Your task to perform on an android device: turn on improve location accuracy Image 0: 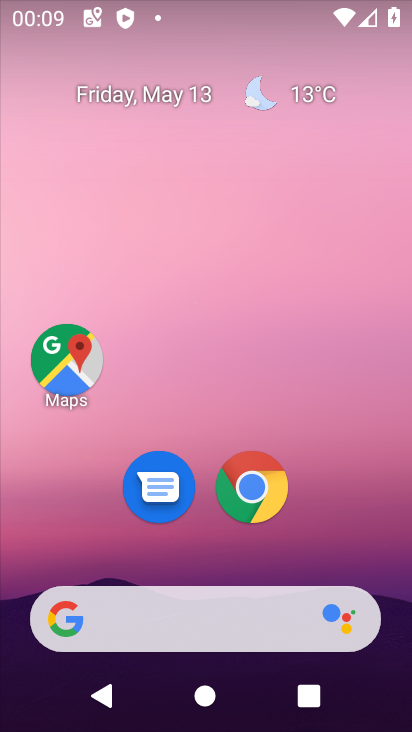
Step 0: drag from (206, 559) to (274, 52)
Your task to perform on an android device: turn on improve location accuracy Image 1: 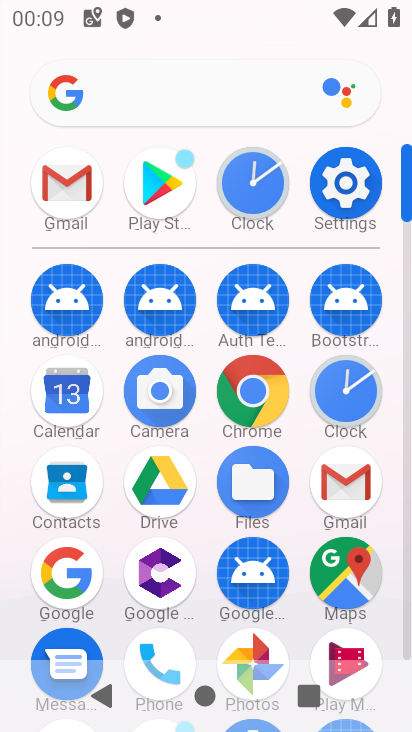
Step 1: click (336, 173)
Your task to perform on an android device: turn on improve location accuracy Image 2: 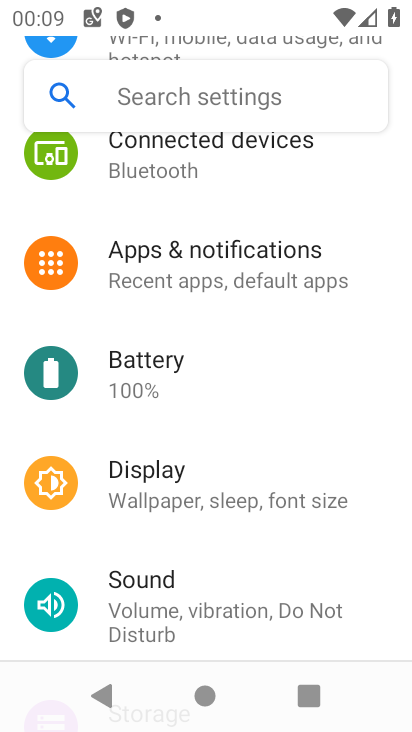
Step 2: drag from (201, 498) to (302, 90)
Your task to perform on an android device: turn on improve location accuracy Image 3: 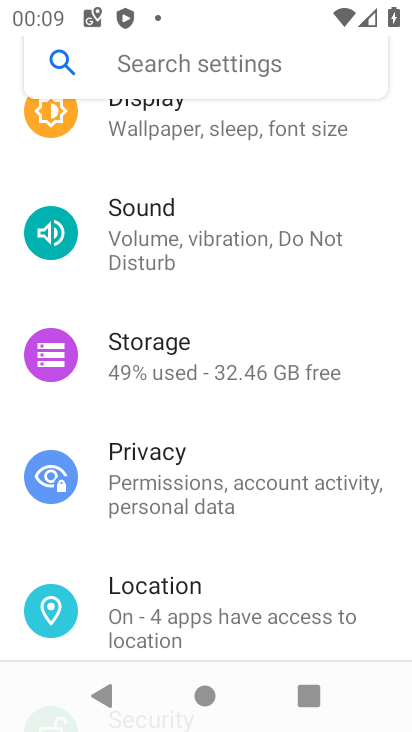
Step 3: click (175, 616)
Your task to perform on an android device: turn on improve location accuracy Image 4: 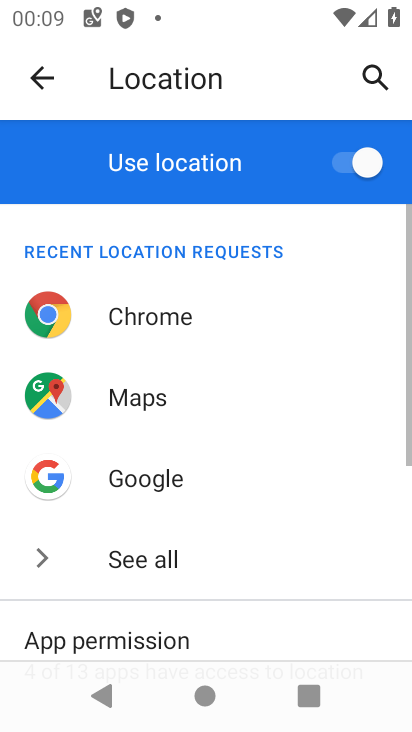
Step 4: drag from (175, 616) to (209, 205)
Your task to perform on an android device: turn on improve location accuracy Image 5: 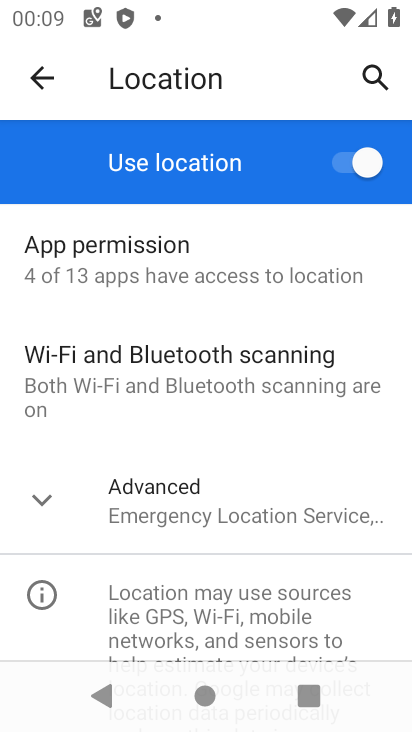
Step 5: click (146, 517)
Your task to perform on an android device: turn on improve location accuracy Image 6: 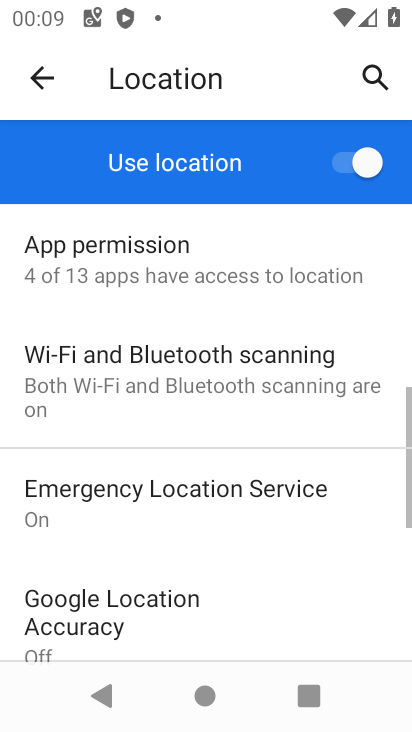
Step 6: drag from (180, 611) to (205, 179)
Your task to perform on an android device: turn on improve location accuracy Image 7: 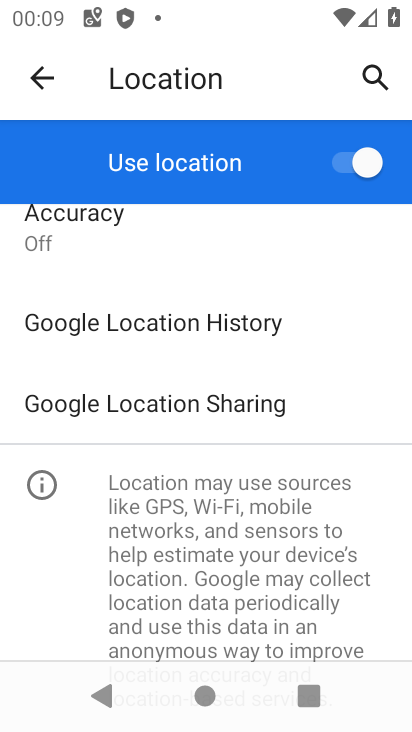
Step 7: click (101, 218)
Your task to perform on an android device: turn on improve location accuracy Image 8: 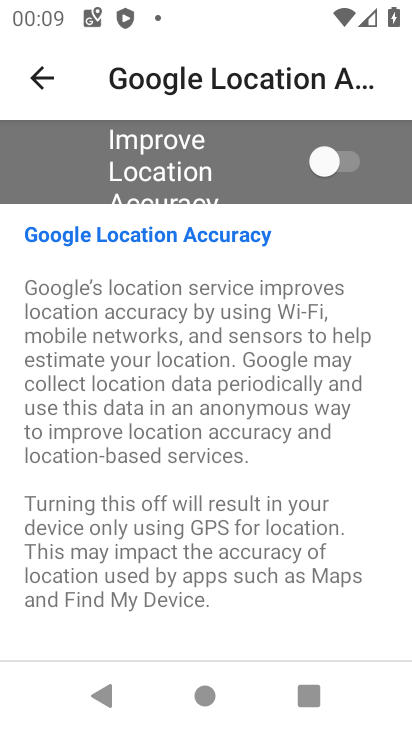
Step 8: click (344, 176)
Your task to perform on an android device: turn on improve location accuracy Image 9: 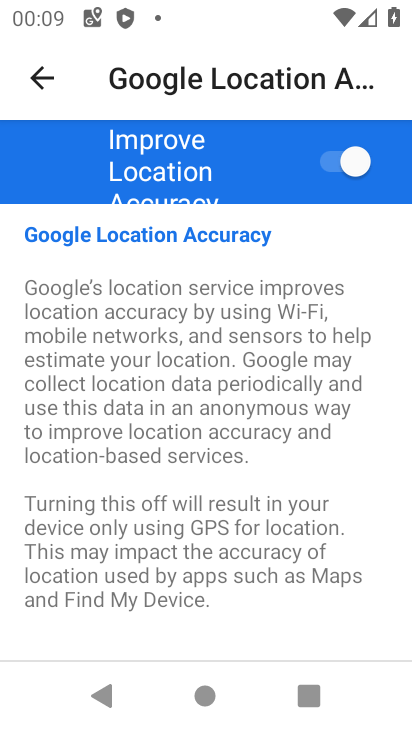
Step 9: task complete